Your task to perform on an android device: change text size in settings app Image 0: 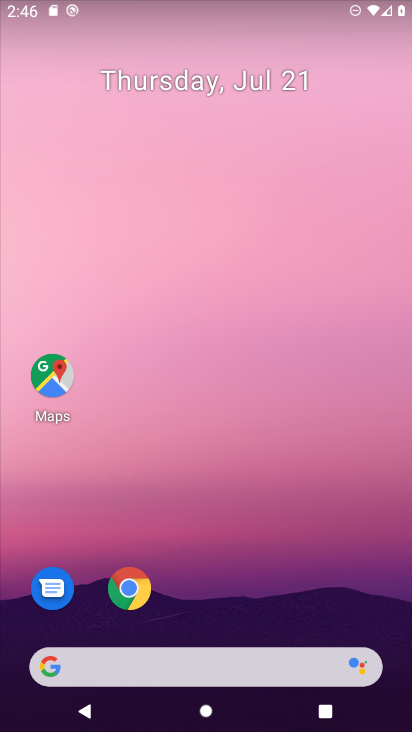
Step 0: drag from (255, 595) to (277, 174)
Your task to perform on an android device: change text size in settings app Image 1: 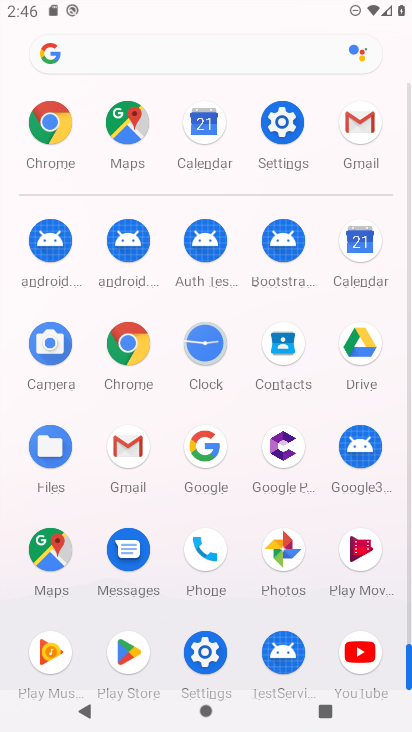
Step 1: click (308, 137)
Your task to perform on an android device: change text size in settings app Image 2: 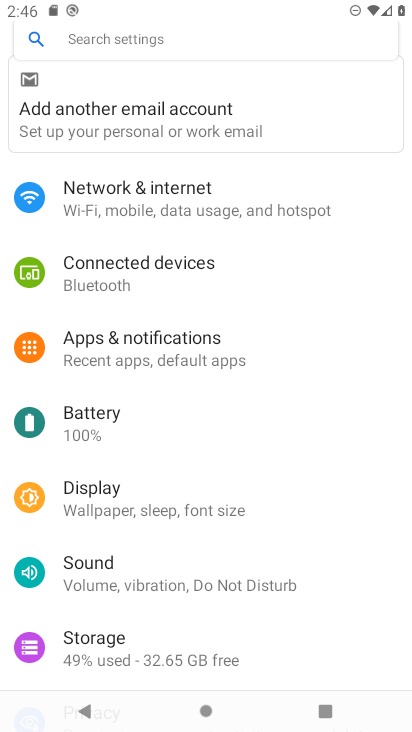
Step 2: drag from (209, 550) to (268, 315)
Your task to perform on an android device: change text size in settings app Image 3: 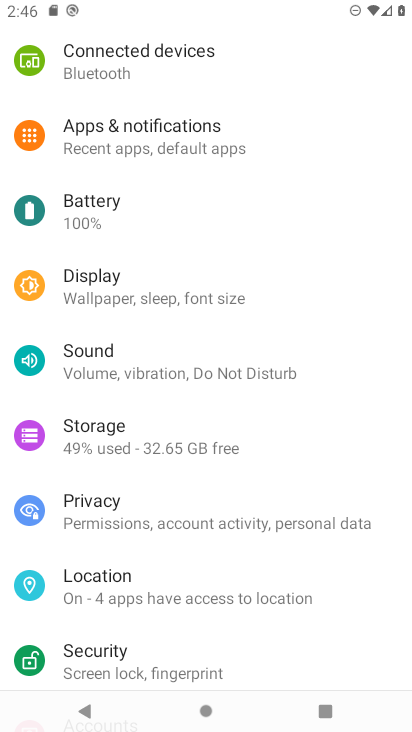
Step 3: click (276, 294)
Your task to perform on an android device: change text size in settings app Image 4: 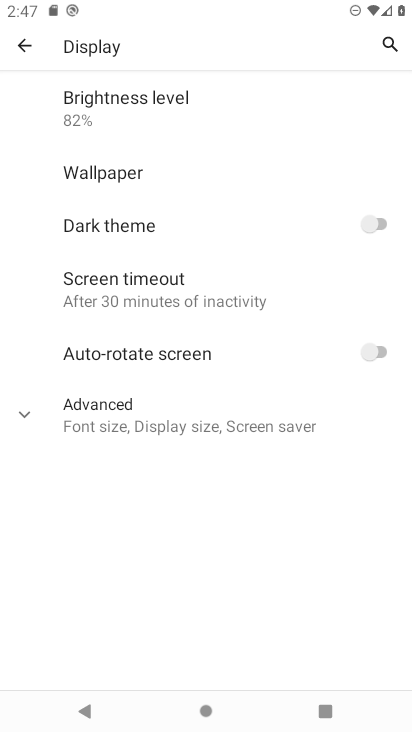
Step 4: click (144, 427)
Your task to perform on an android device: change text size in settings app Image 5: 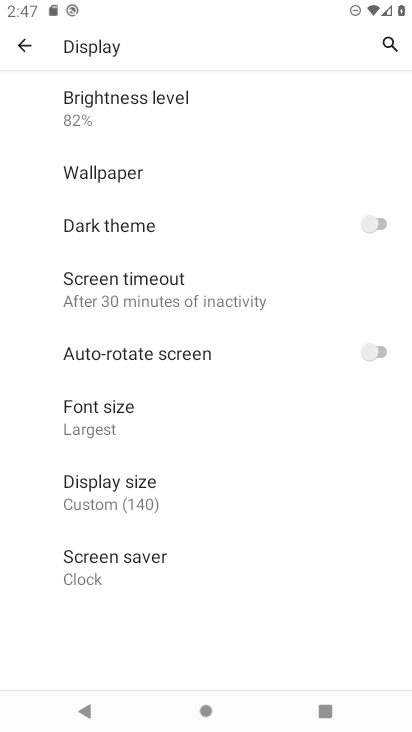
Step 5: click (146, 411)
Your task to perform on an android device: change text size in settings app Image 6: 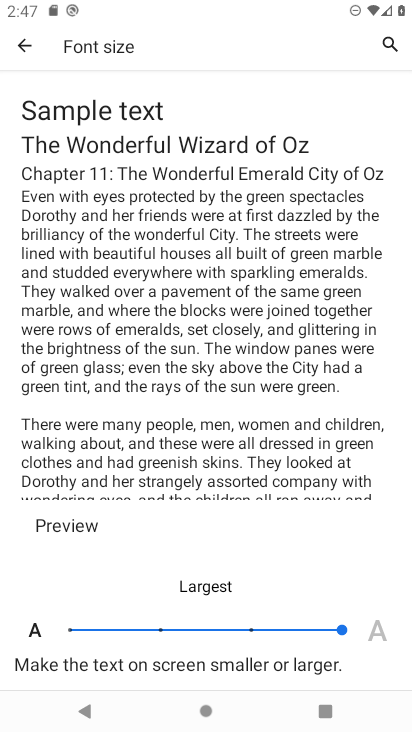
Step 6: click (247, 642)
Your task to perform on an android device: change text size in settings app Image 7: 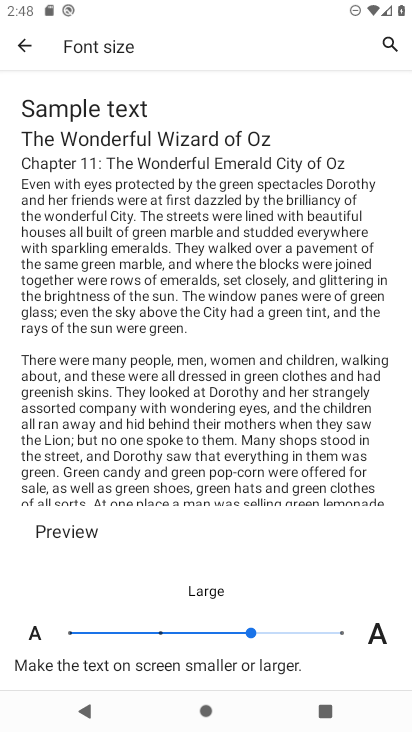
Step 7: task complete